Your task to perform on an android device: turn on priority inbox in the gmail app Image 0: 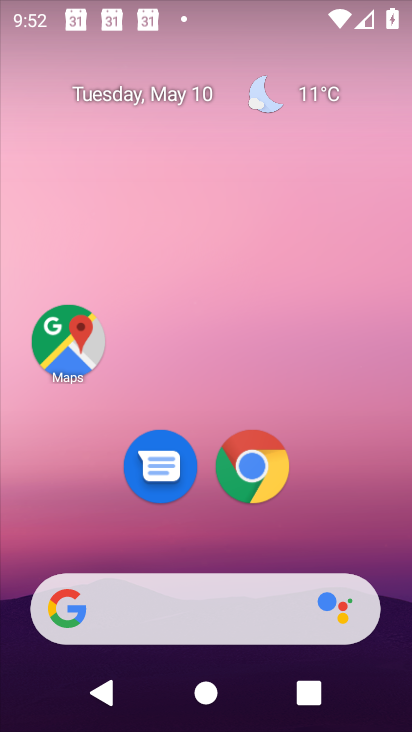
Step 0: drag from (356, 506) to (342, 19)
Your task to perform on an android device: turn on priority inbox in the gmail app Image 1: 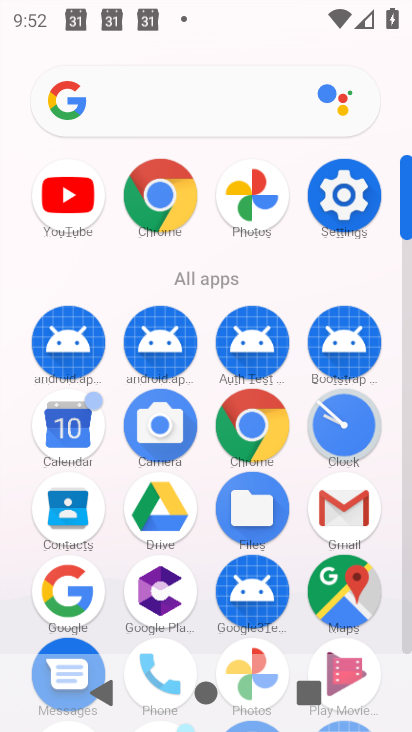
Step 1: click (357, 520)
Your task to perform on an android device: turn on priority inbox in the gmail app Image 2: 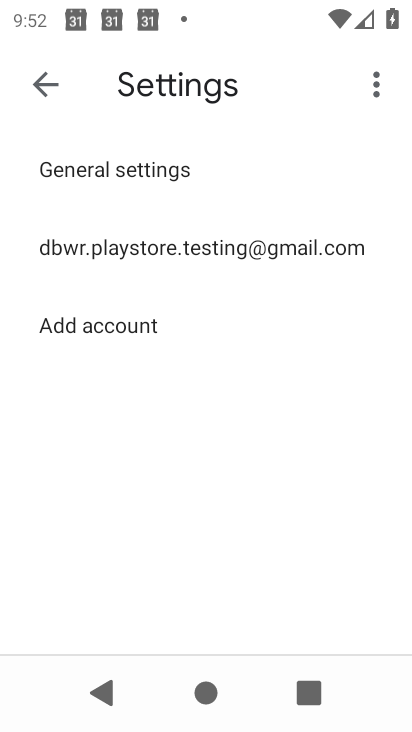
Step 2: click (141, 248)
Your task to perform on an android device: turn on priority inbox in the gmail app Image 3: 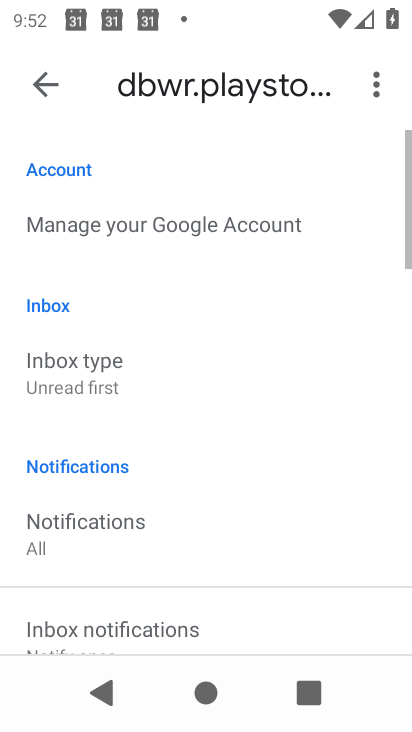
Step 3: drag from (148, 582) to (231, 163)
Your task to perform on an android device: turn on priority inbox in the gmail app Image 4: 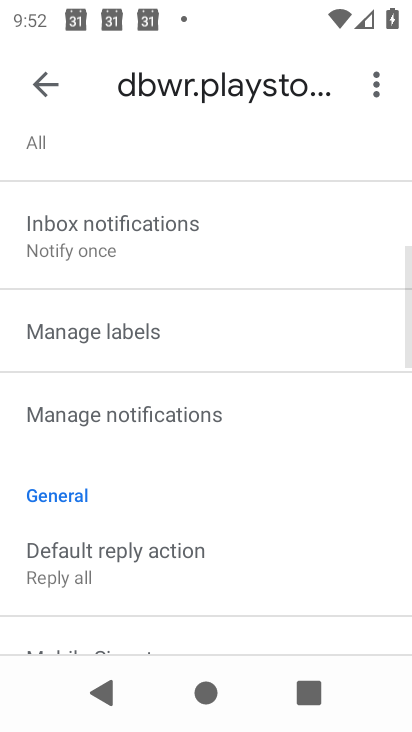
Step 4: drag from (237, 556) to (291, 140)
Your task to perform on an android device: turn on priority inbox in the gmail app Image 5: 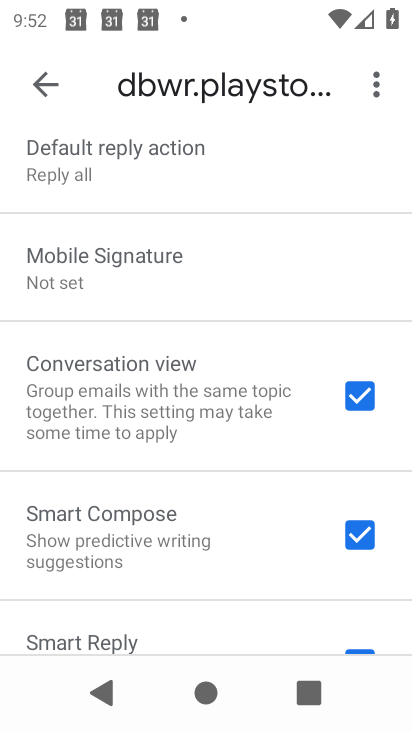
Step 5: drag from (207, 525) to (277, 177)
Your task to perform on an android device: turn on priority inbox in the gmail app Image 6: 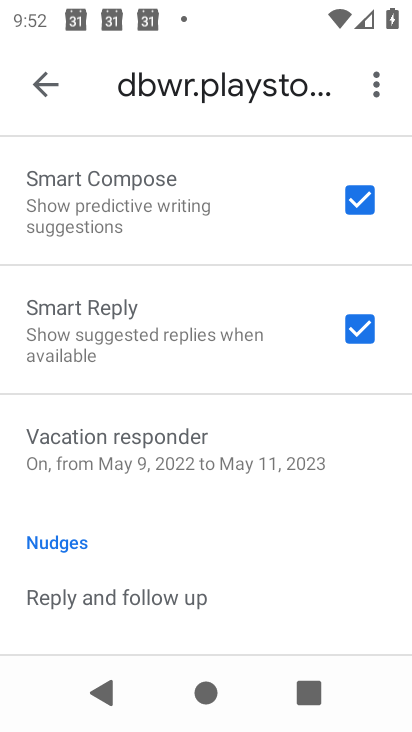
Step 6: drag from (221, 487) to (184, 716)
Your task to perform on an android device: turn on priority inbox in the gmail app Image 7: 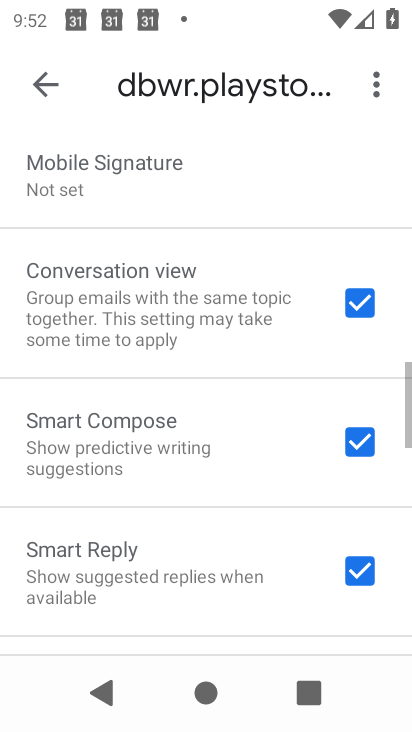
Step 7: drag from (186, 293) to (239, 725)
Your task to perform on an android device: turn on priority inbox in the gmail app Image 8: 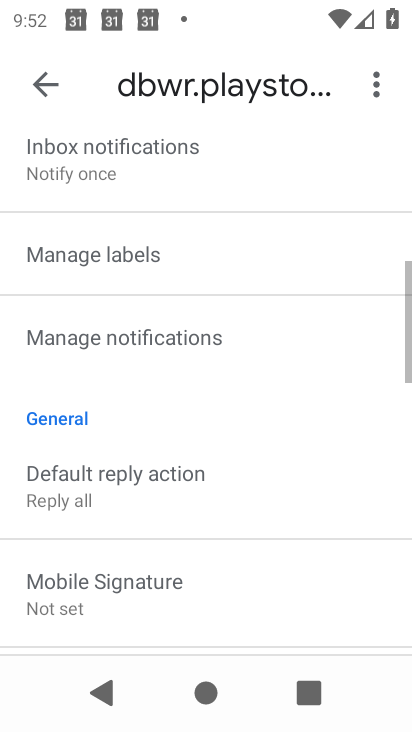
Step 8: drag from (196, 268) to (245, 727)
Your task to perform on an android device: turn on priority inbox in the gmail app Image 9: 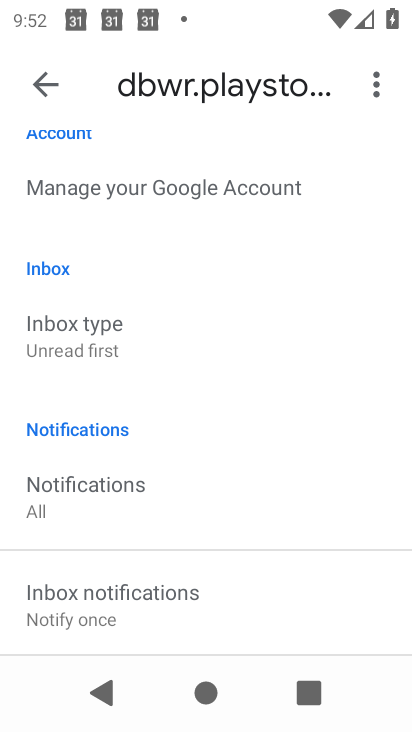
Step 9: drag from (184, 447) to (217, 247)
Your task to perform on an android device: turn on priority inbox in the gmail app Image 10: 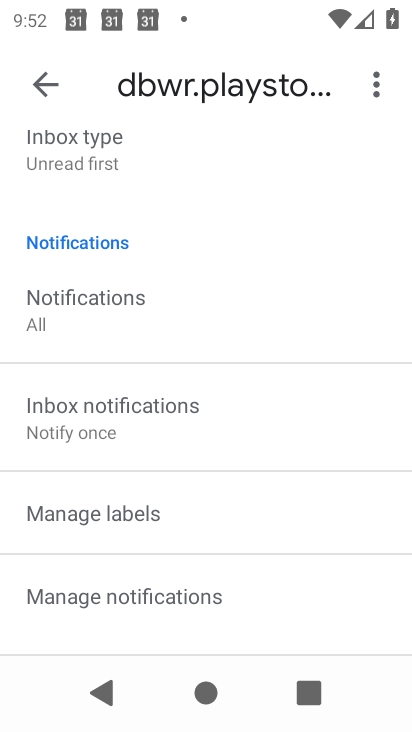
Step 10: drag from (190, 301) to (168, 722)
Your task to perform on an android device: turn on priority inbox in the gmail app Image 11: 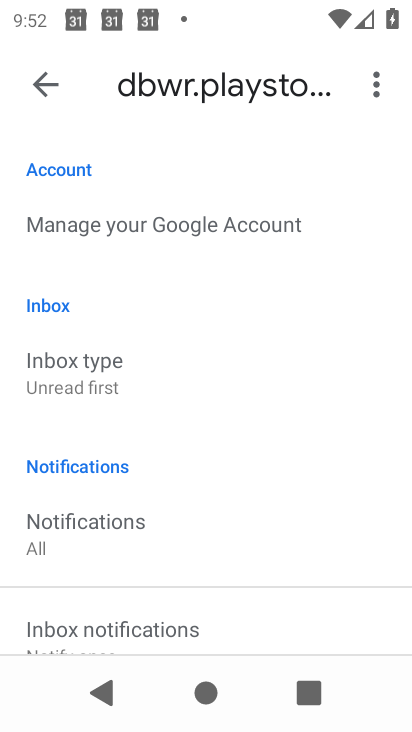
Step 11: click (86, 387)
Your task to perform on an android device: turn on priority inbox in the gmail app Image 12: 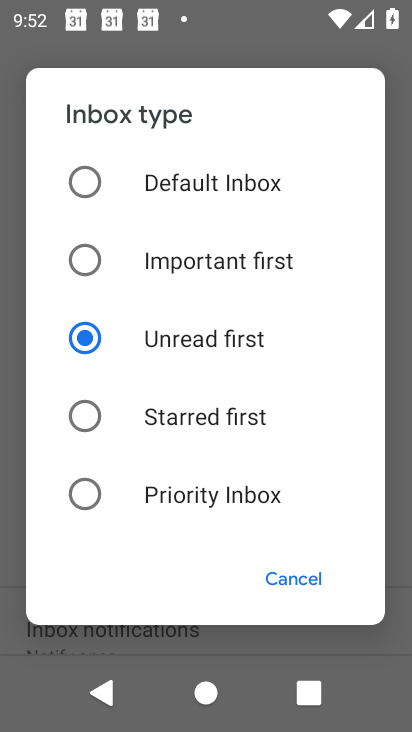
Step 12: task complete